Your task to perform on an android device: Search for razer kraken on walmart.com, select the first entry, and add it to the cart. Image 0: 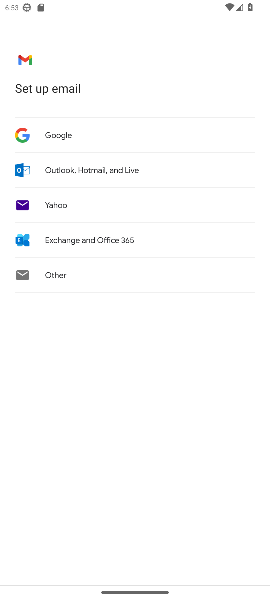
Step 0: press home button
Your task to perform on an android device: Search for razer kraken on walmart.com, select the first entry, and add it to the cart. Image 1: 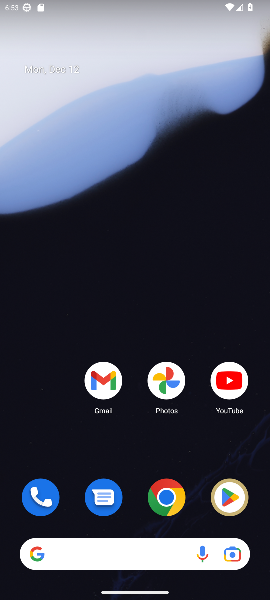
Step 1: drag from (58, 437) to (57, 64)
Your task to perform on an android device: Search for razer kraken on walmart.com, select the first entry, and add it to the cart. Image 2: 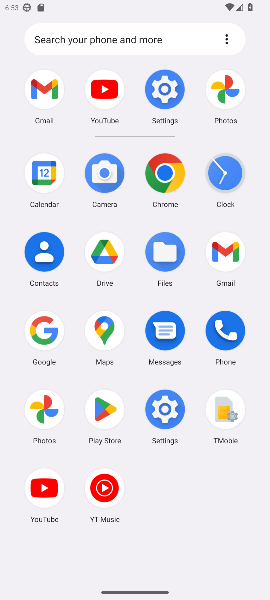
Step 2: click (42, 328)
Your task to perform on an android device: Search for razer kraken on walmart.com, select the first entry, and add it to the cart. Image 3: 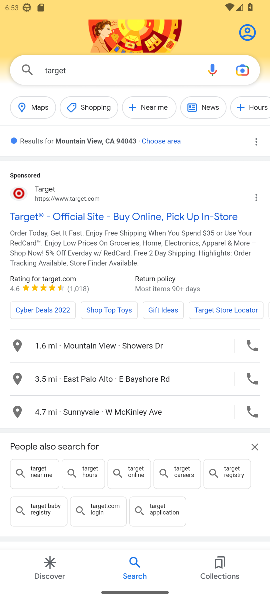
Step 3: click (150, 66)
Your task to perform on an android device: Search for razer kraken on walmart.com, select the first entry, and add it to the cart. Image 4: 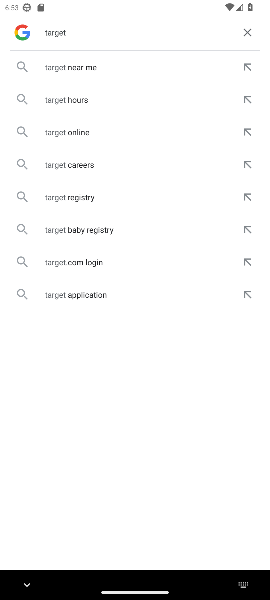
Step 4: click (248, 32)
Your task to perform on an android device: Search for razer kraken on walmart.com, select the first entry, and add it to the cart. Image 5: 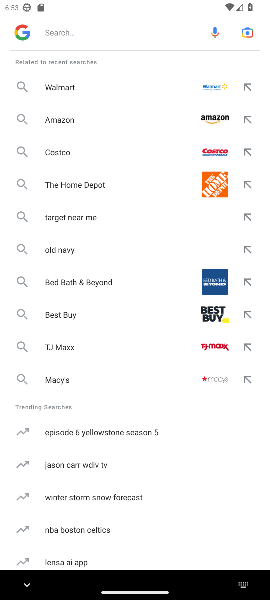
Step 5: type "walmart.com"
Your task to perform on an android device: Search for razer kraken on walmart.com, select the first entry, and add it to the cart. Image 6: 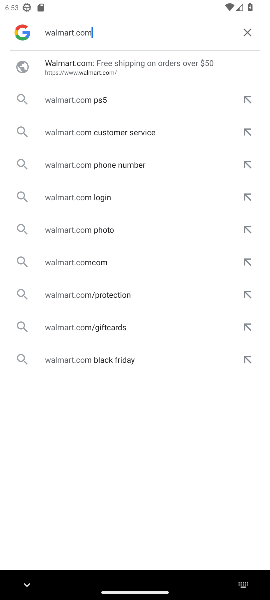
Step 6: press enter
Your task to perform on an android device: Search for razer kraken on walmart.com, select the first entry, and add it to the cart. Image 7: 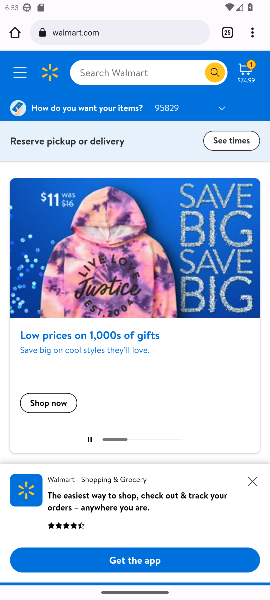
Step 7: click (115, 75)
Your task to perform on an android device: Search for razer kraken on walmart.com, select the first entry, and add it to the cart. Image 8: 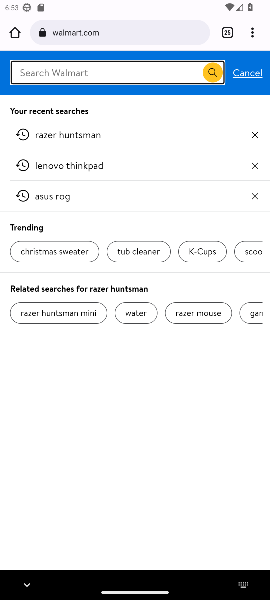
Step 8: type " razer kraken"
Your task to perform on an android device: Search for razer kraken on walmart.com, select the first entry, and add it to the cart. Image 9: 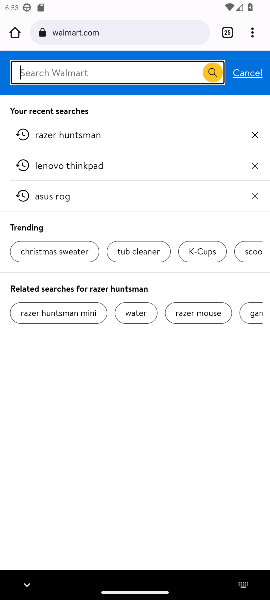
Step 9: press enter
Your task to perform on an android device: Search for razer kraken on walmart.com, select the first entry, and add it to the cart. Image 10: 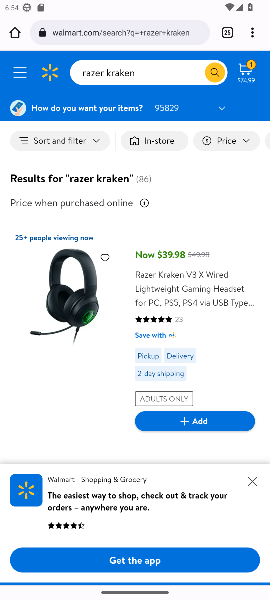
Step 10: click (200, 419)
Your task to perform on an android device: Search for razer kraken on walmart.com, select the first entry, and add it to the cart. Image 11: 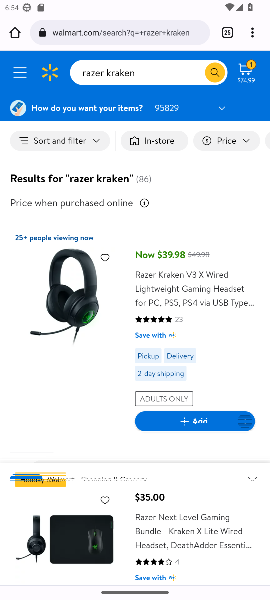
Step 11: click (186, 422)
Your task to perform on an android device: Search for razer kraken on walmart.com, select the first entry, and add it to the cart. Image 12: 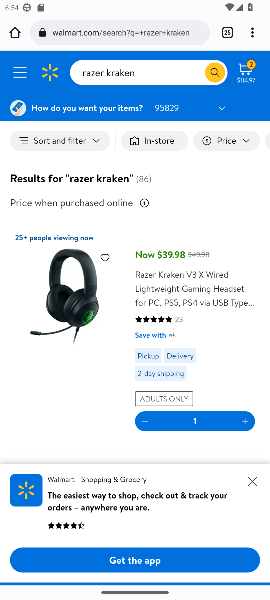
Step 12: task complete